Your task to perform on an android device: open a bookmark in the chrome app Image 0: 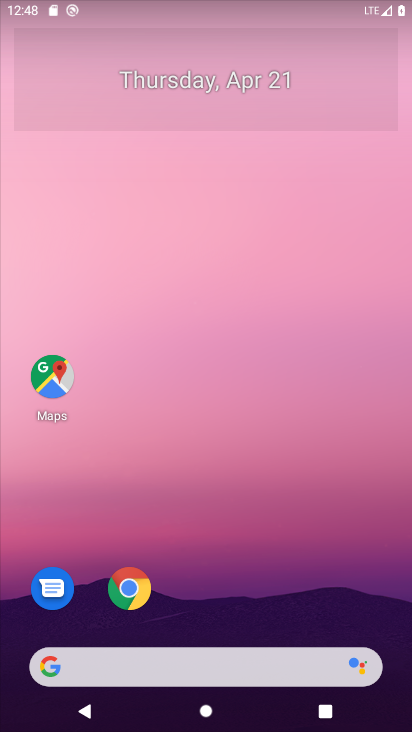
Step 0: drag from (221, 610) to (291, 52)
Your task to perform on an android device: open a bookmark in the chrome app Image 1: 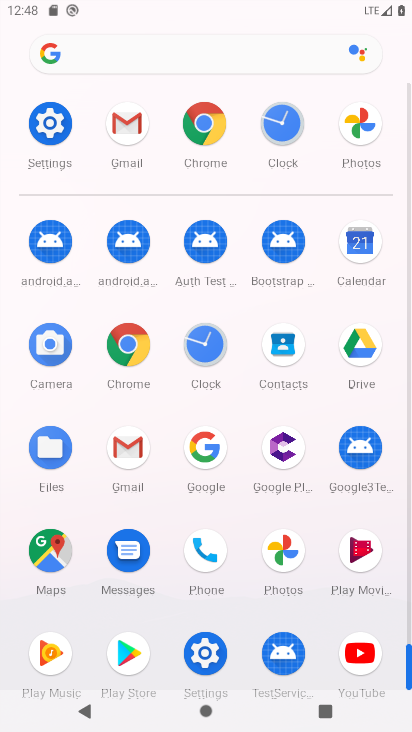
Step 1: click (123, 336)
Your task to perform on an android device: open a bookmark in the chrome app Image 2: 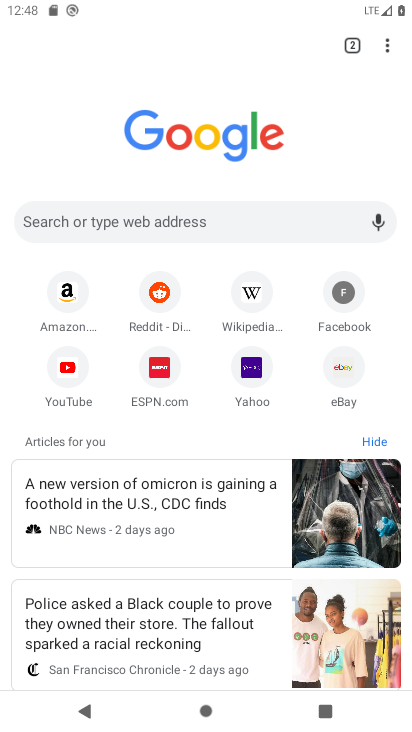
Step 2: click (384, 40)
Your task to perform on an android device: open a bookmark in the chrome app Image 3: 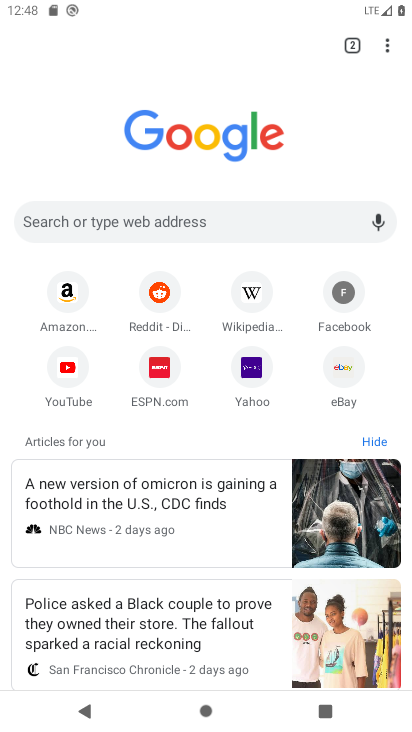
Step 3: click (385, 44)
Your task to perform on an android device: open a bookmark in the chrome app Image 4: 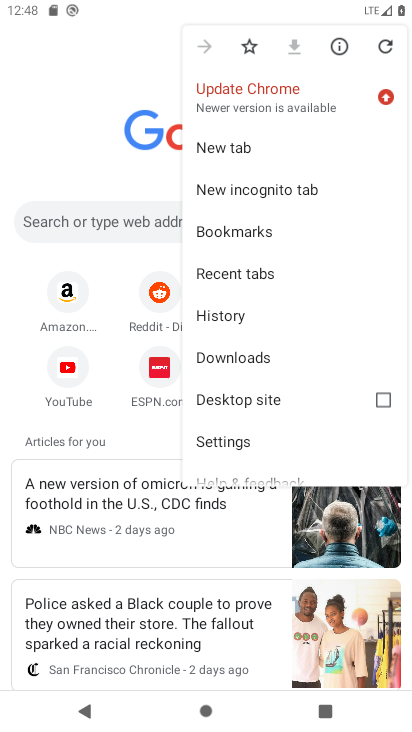
Step 4: click (280, 230)
Your task to perform on an android device: open a bookmark in the chrome app Image 5: 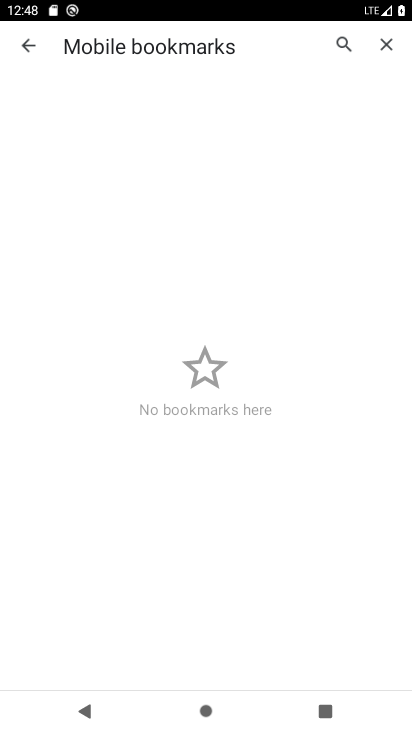
Step 5: task complete